Your task to perform on an android device: open the mobile data screen to see how much data has been used Image 0: 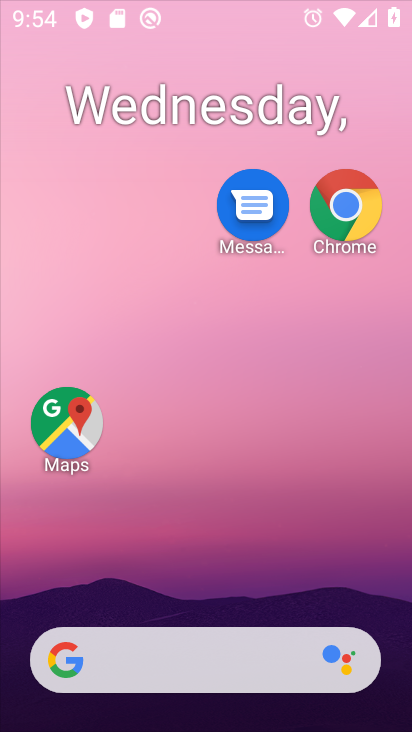
Step 0: click (242, 164)
Your task to perform on an android device: open the mobile data screen to see how much data has been used Image 1: 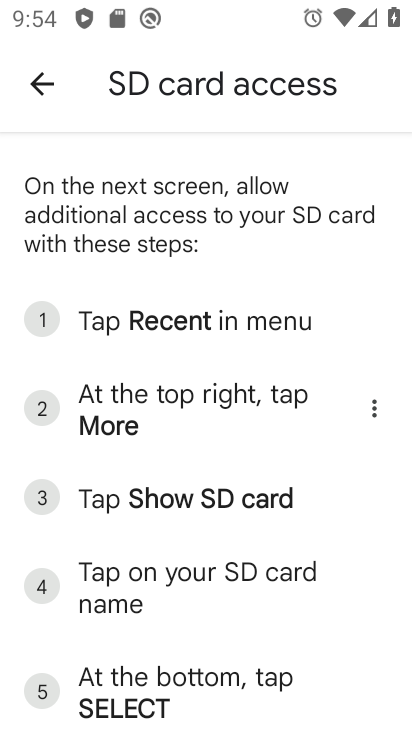
Step 1: drag from (244, 594) to (336, 223)
Your task to perform on an android device: open the mobile data screen to see how much data has been used Image 2: 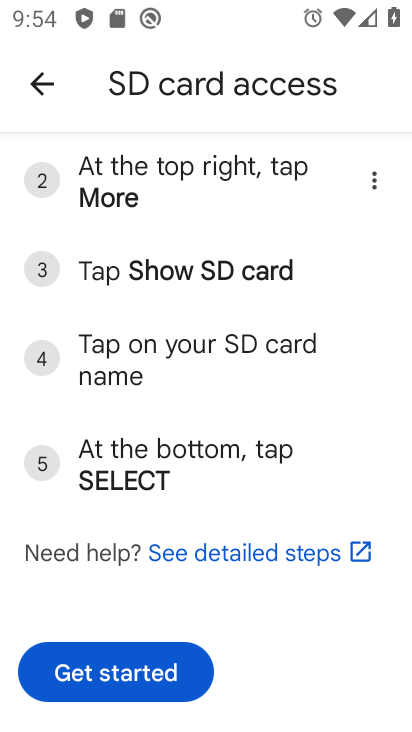
Step 2: press home button
Your task to perform on an android device: open the mobile data screen to see how much data has been used Image 3: 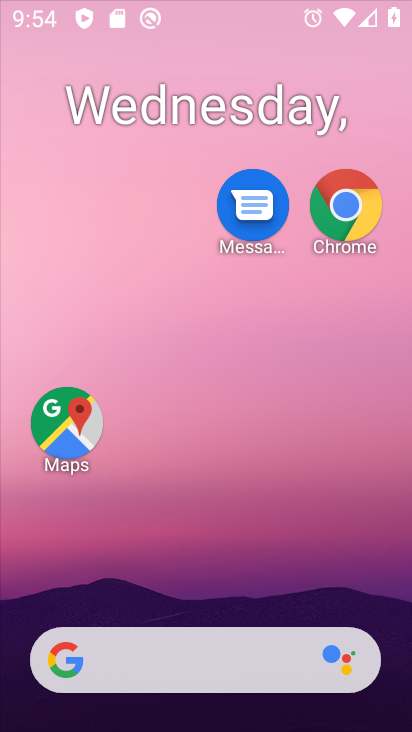
Step 3: drag from (230, 378) to (295, 135)
Your task to perform on an android device: open the mobile data screen to see how much data has been used Image 4: 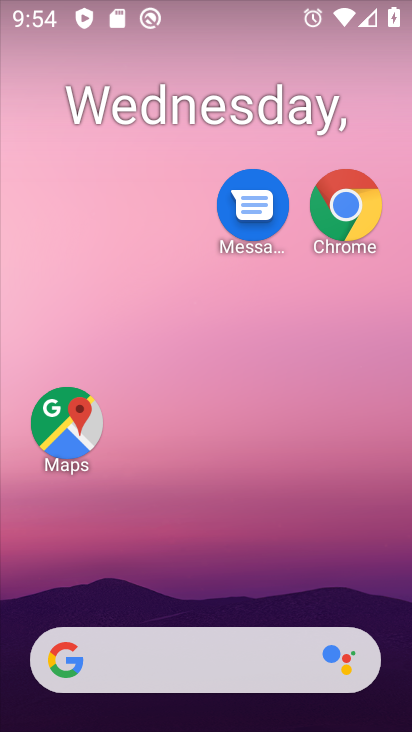
Step 4: drag from (192, 599) to (280, 51)
Your task to perform on an android device: open the mobile data screen to see how much data has been used Image 5: 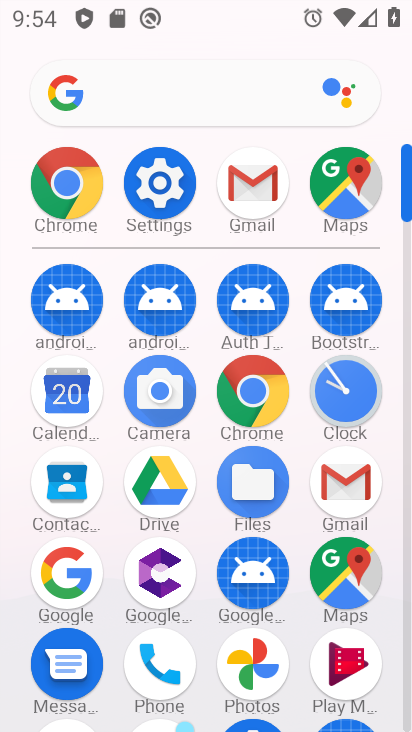
Step 5: click (145, 161)
Your task to perform on an android device: open the mobile data screen to see how much data has been used Image 6: 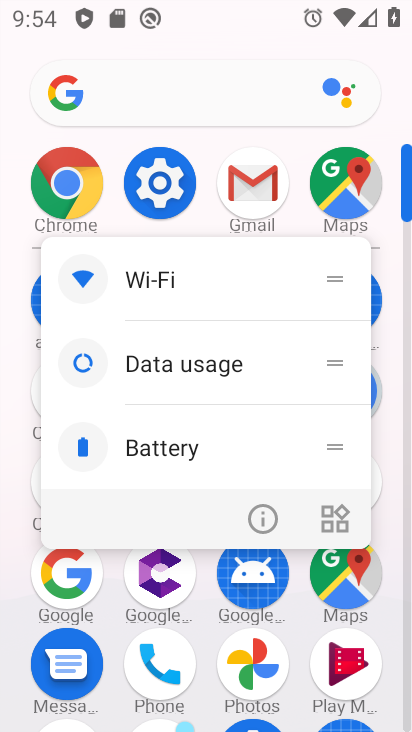
Step 6: click (263, 519)
Your task to perform on an android device: open the mobile data screen to see how much data has been used Image 7: 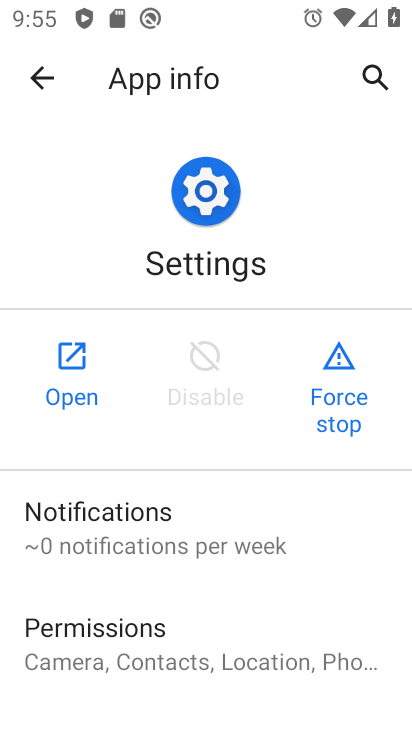
Step 7: click (54, 372)
Your task to perform on an android device: open the mobile data screen to see how much data has been used Image 8: 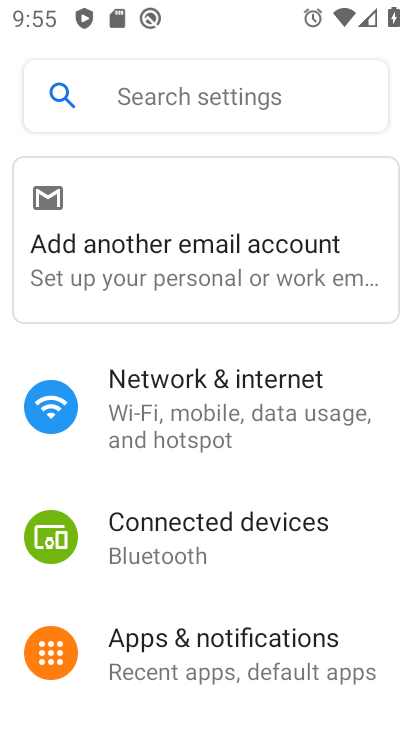
Step 8: click (185, 394)
Your task to perform on an android device: open the mobile data screen to see how much data has been used Image 9: 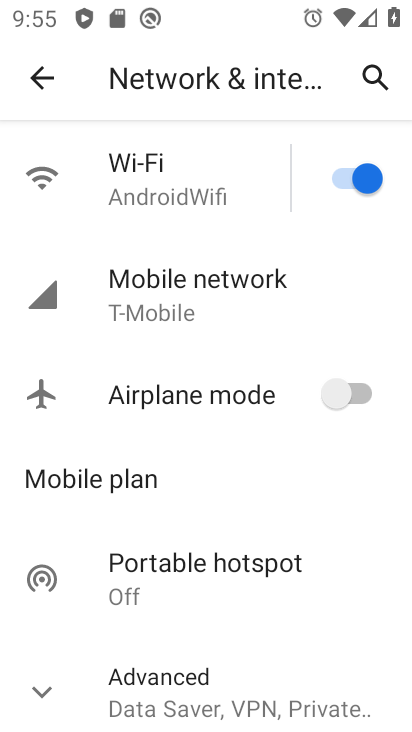
Step 9: click (267, 294)
Your task to perform on an android device: open the mobile data screen to see how much data has been used Image 10: 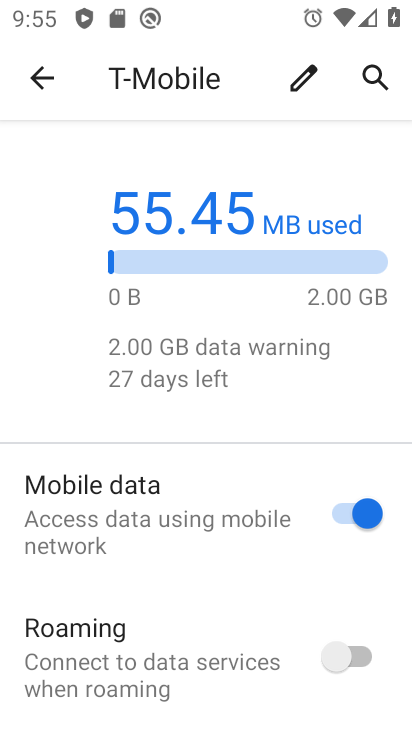
Step 10: task complete